Your task to perform on an android device: Go to display settings Image 0: 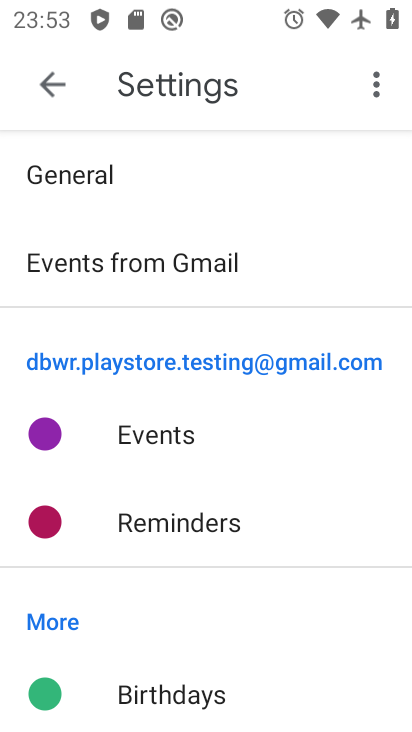
Step 0: press home button
Your task to perform on an android device: Go to display settings Image 1: 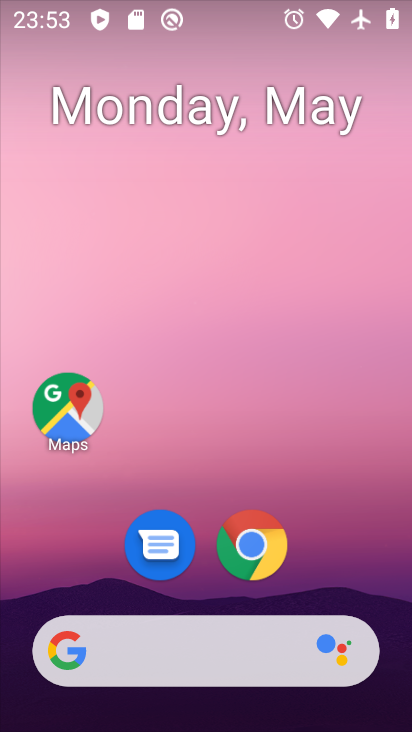
Step 1: drag from (240, 594) to (256, 65)
Your task to perform on an android device: Go to display settings Image 2: 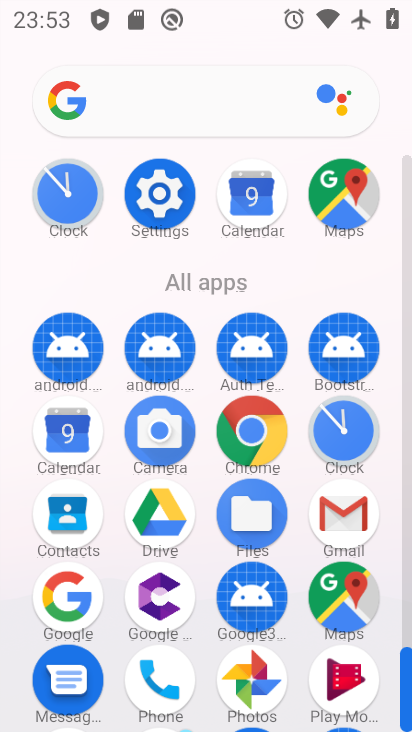
Step 2: click (171, 186)
Your task to perform on an android device: Go to display settings Image 3: 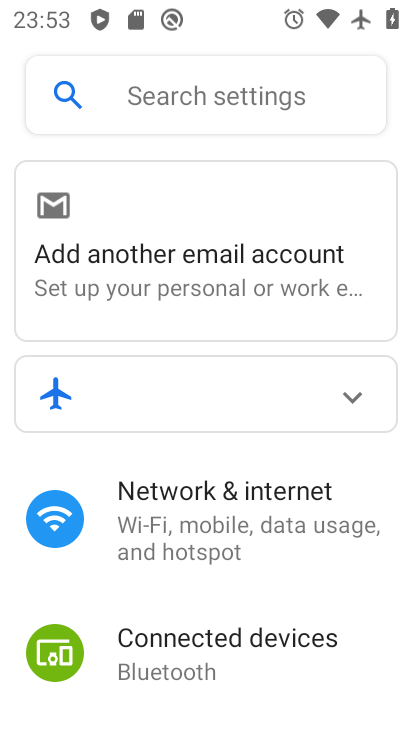
Step 3: drag from (166, 554) to (162, 358)
Your task to perform on an android device: Go to display settings Image 4: 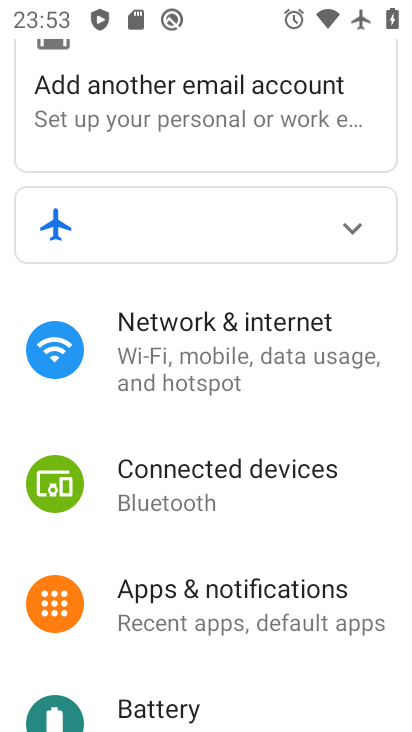
Step 4: drag from (167, 579) to (178, 387)
Your task to perform on an android device: Go to display settings Image 5: 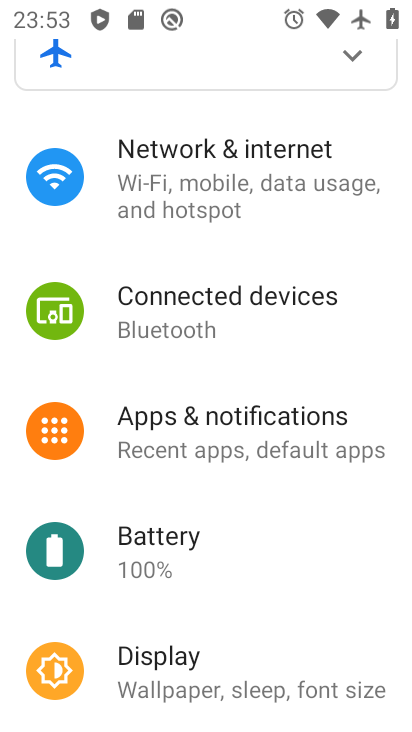
Step 5: click (201, 689)
Your task to perform on an android device: Go to display settings Image 6: 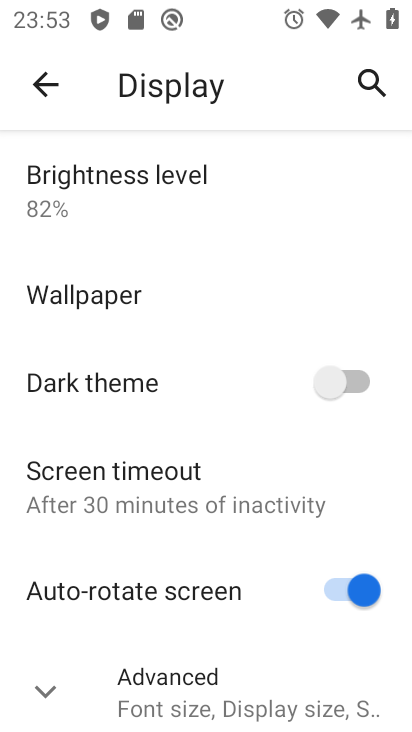
Step 6: task complete